Your task to perform on an android device: Is it going to rain today? Image 0: 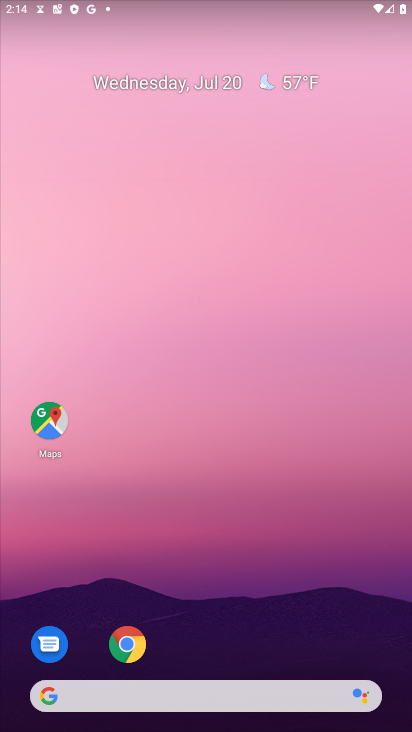
Step 0: press home button
Your task to perform on an android device: Is it going to rain today? Image 1: 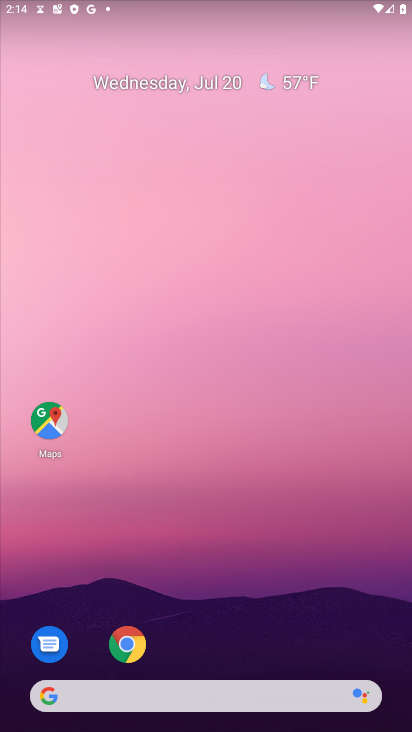
Step 1: click (35, 692)
Your task to perform on an android device: Is it going to rain today? Image 2: 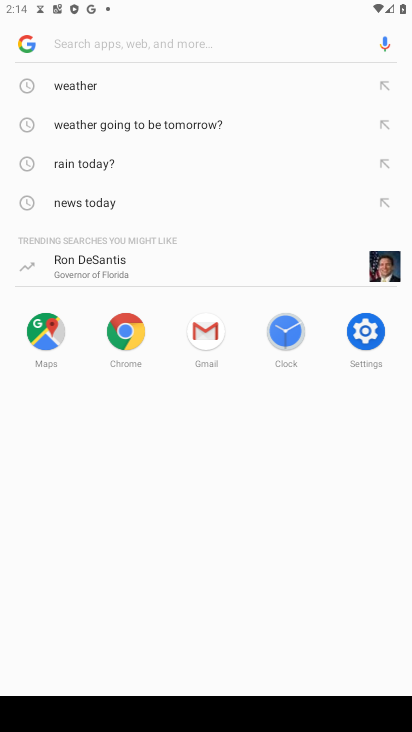
Step 2: click (78, 161)
Your task to perform on an android device: Is it going to rain today? Image 3: 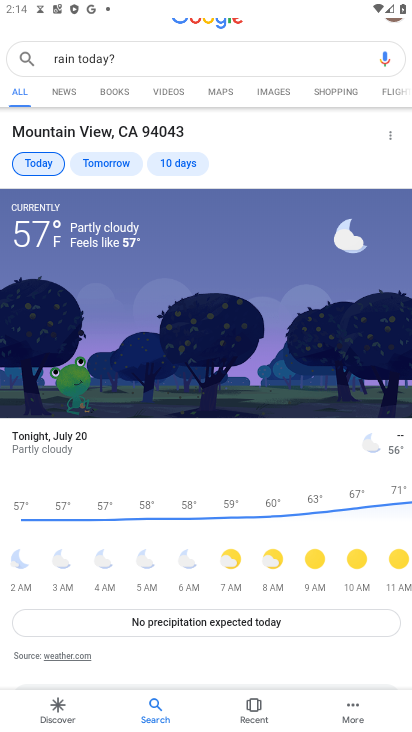
Step 3: task complete